Your task to perform on an android device: Go to eBay Image 0: 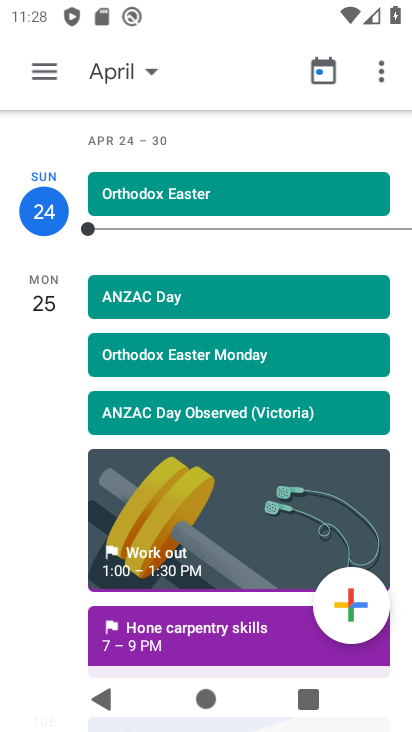
Step 0: press back button
Your task to perform on an android device: Go to eBay Image 1: 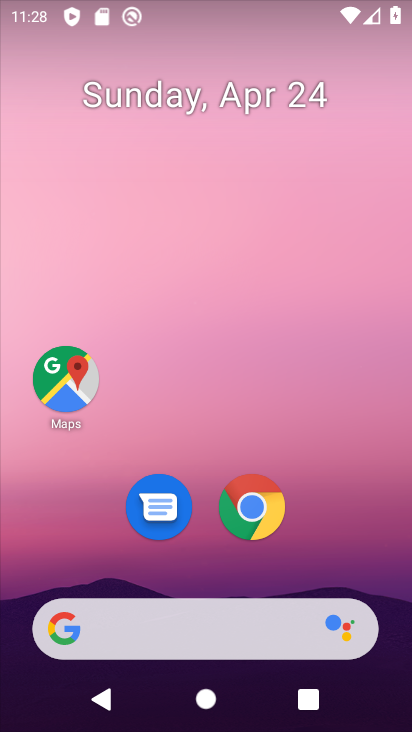
Step 1: drag from (331, 555) to (256, 3)
Your task to perform on an android device: Go to eBay Image 2: 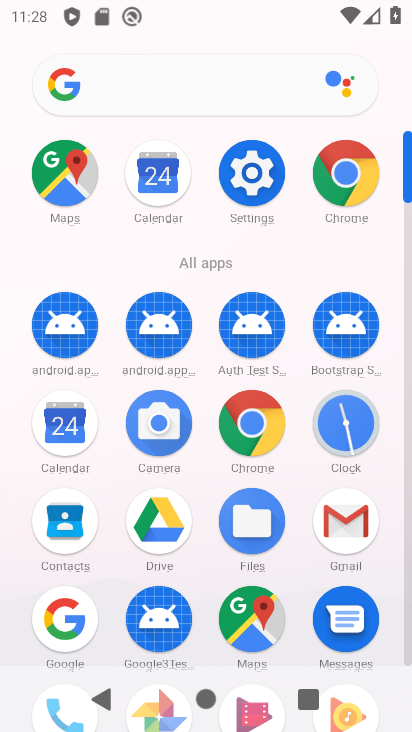
Step 2: click (240, 421)
Your task to perform on an android device: Go to eBay Image 3: 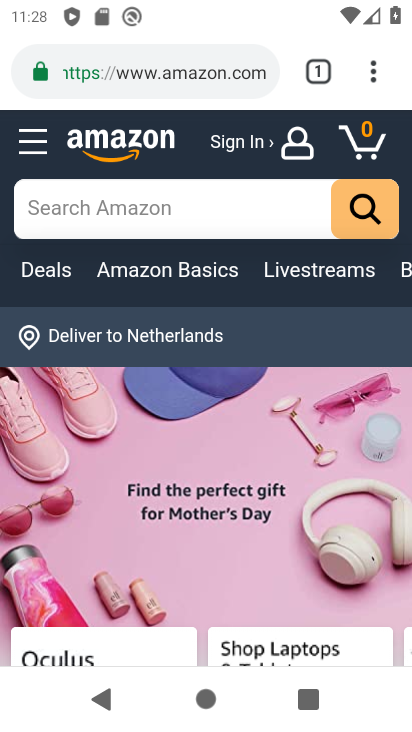
Step 3: click (153, 74)
Your task to perform on an android device: Go to eBay Image 4: 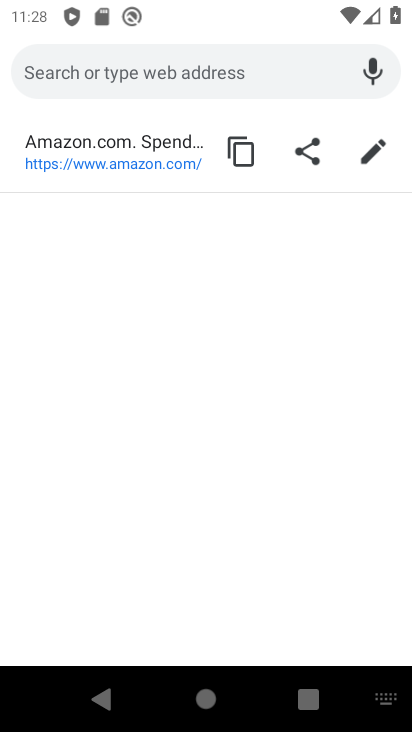
Step 4: type "eBay"
Your task to perform on an android device: Go to eBay Image 5: 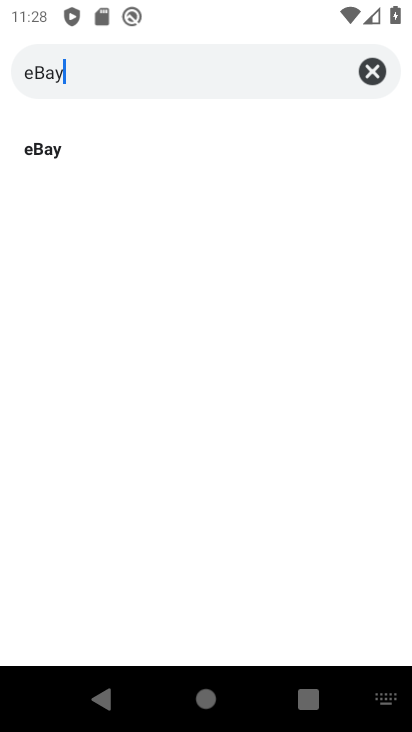
Step 5: type ""
Your task to perform on an android device: Go to eBay Image 6: 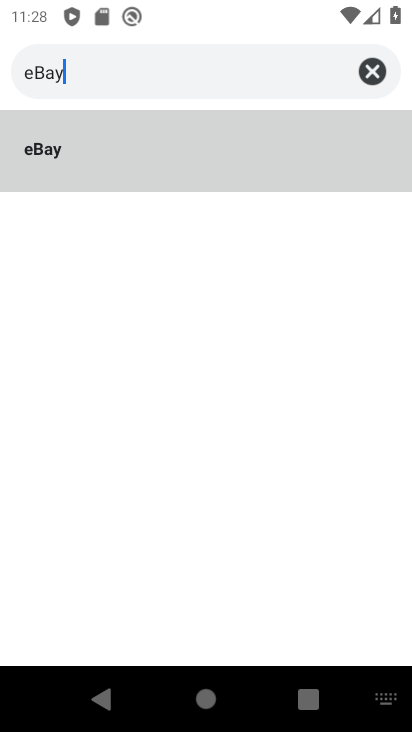
Step 6: click (135, 143)
Your task to perform on an android device: Go to eBay Image 7: 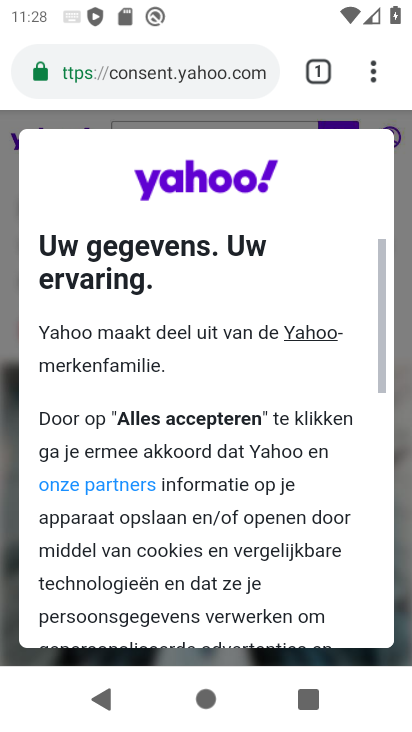
Step 7: drag from (247, 442) to (258, 159)
Your task to perform on an android device: Go to eBay Image 8: 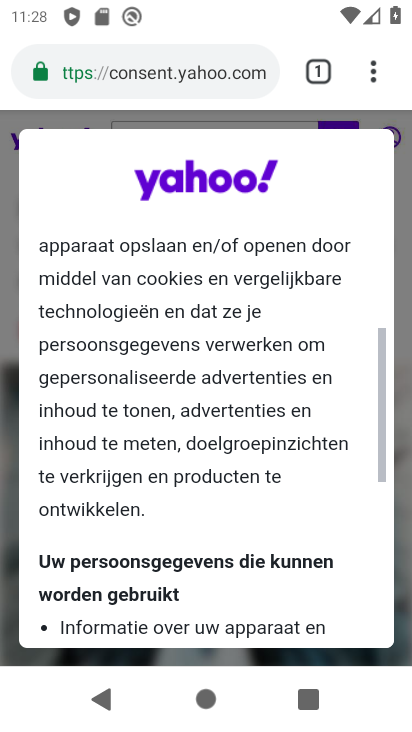
Step 8: drag from (243, 489) to (228, 180)
Your task to perform on an android device: Go to eBay Image 9: 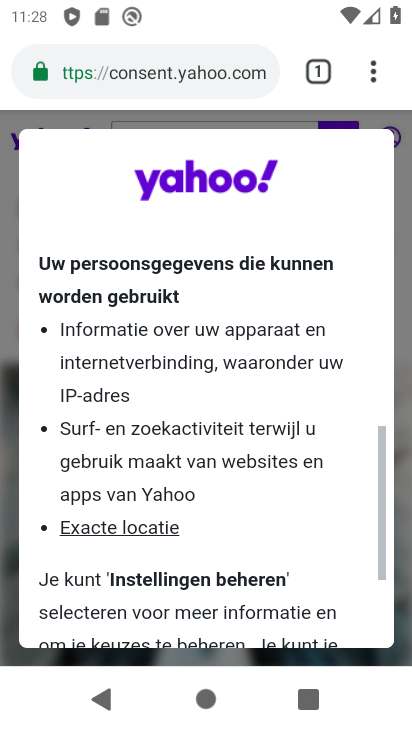
Step 9: drag from (234, 439) to (230, 214)
Your task to perform on an android device: Go to eBay Image 10: 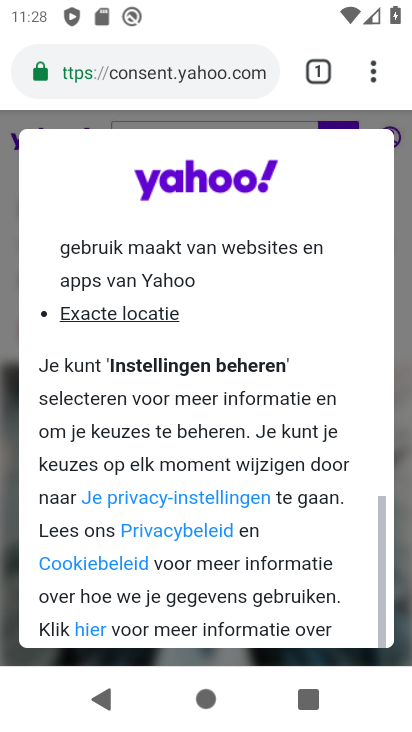
Step 10: click (119, 73)
Your task to perform on an android device: Go to eBay Image 11: 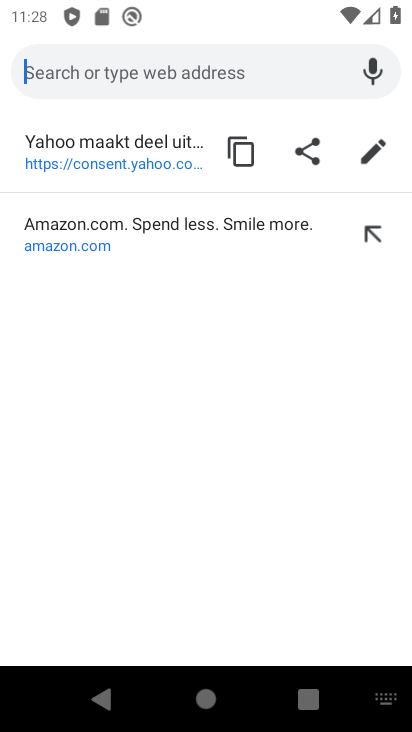
Step 11: type " eBay"
Your task to perform on an android device: Go to eBay Image 12: 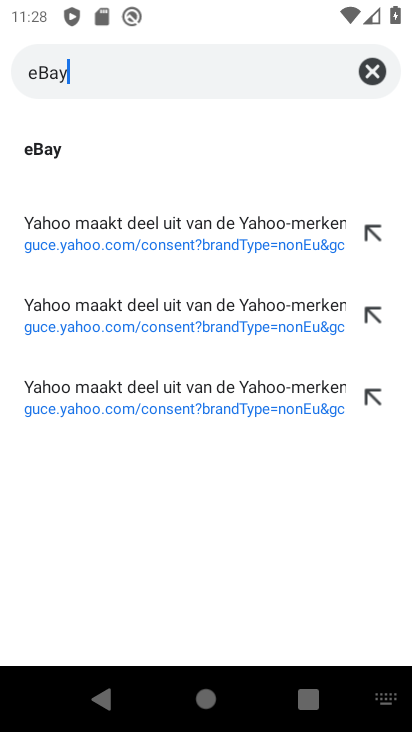
Step 12: type ""
Your task to perform on an android device: Go to eBay Image 13: 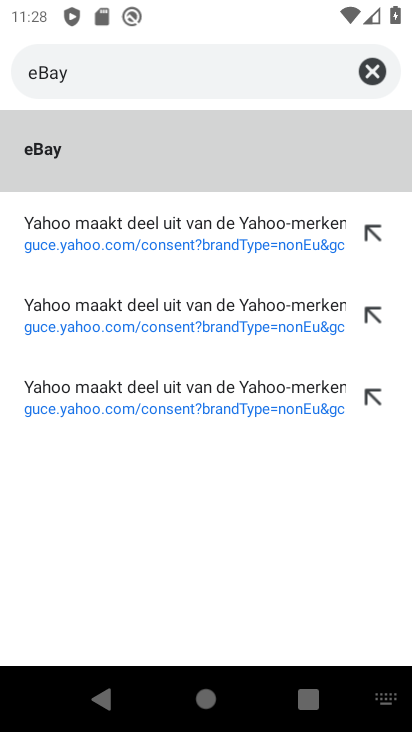
Step 13: click (84, 150)
Your task to perform on an android device: Go to eBay Image 14: 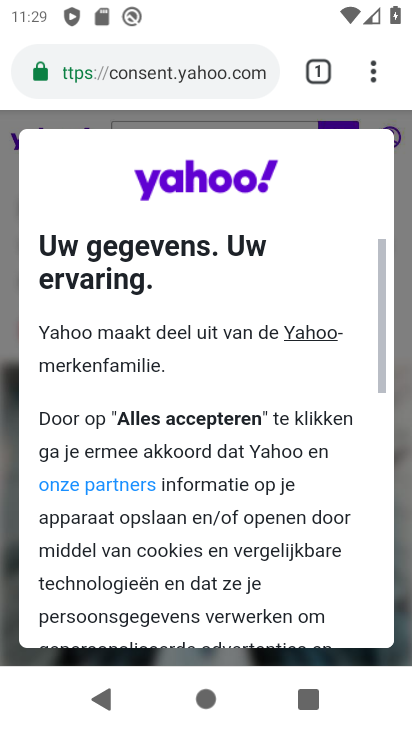
Step 14: task complete